Your task to perform on an android device: change your default location settings in chrome Image 0: 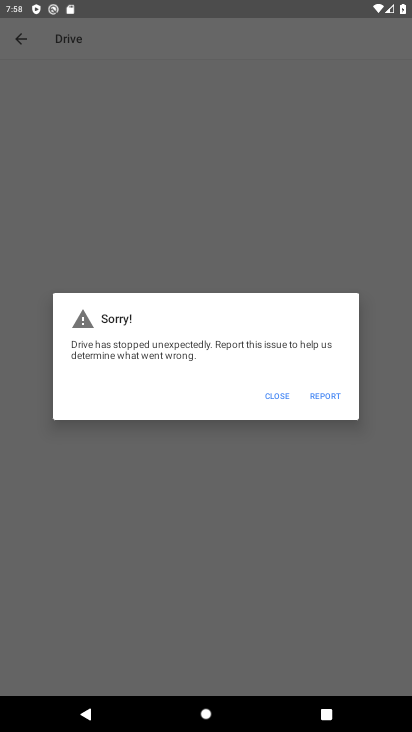
Step 0: press home button
Your task to perform on an android device: change your default location settings in chrome Image 1: 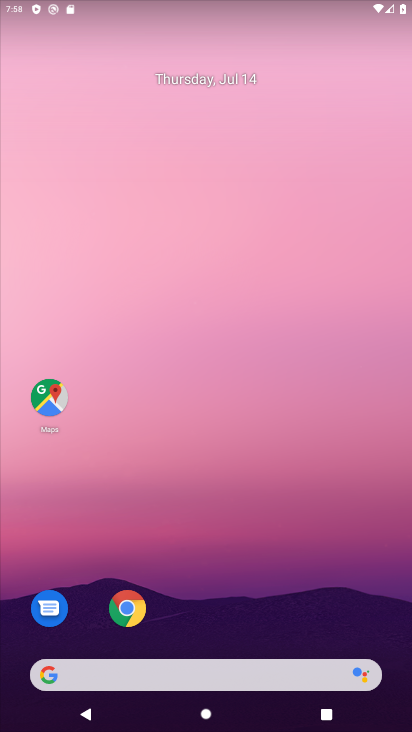
Step 1: click (124, 613)
Your task to perform on an android device: change your default location settings in chrome Image 2: 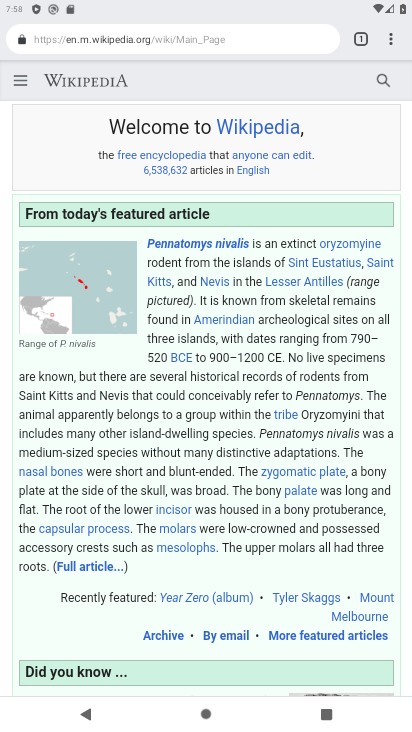
Step 2: click (389, 40)
Your task to perform on an android device: change your default location settings in chrome Image 3: 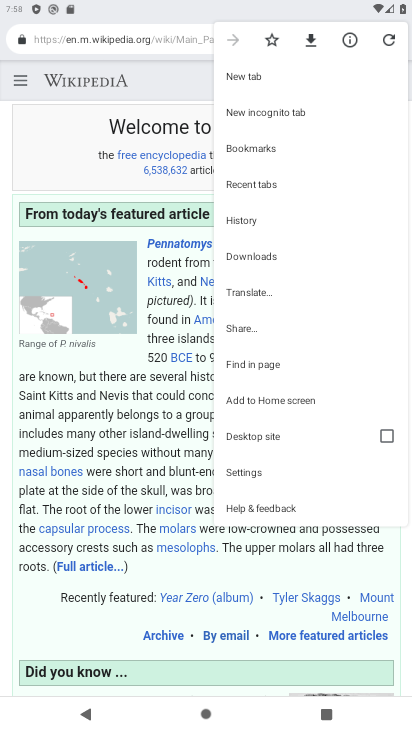
Step 3: click (243, 467)
Your task to perform on an android device: change your default location settings in chrome Image 4: 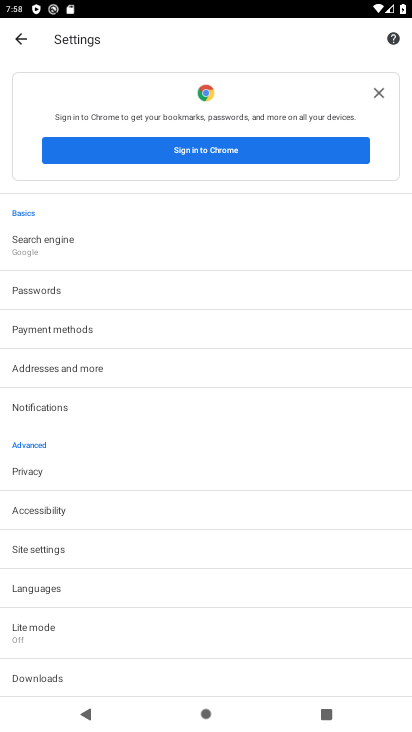
Step 4: click (44, 551)
Your task to perform on an android device: change your default location settings in chrome Image 5: 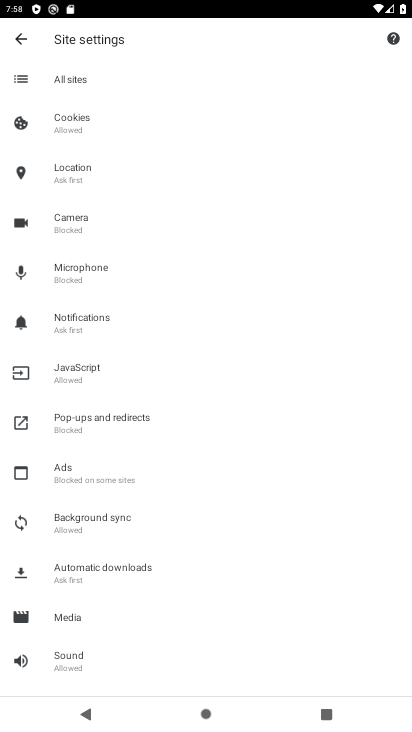
Step 5: click (69, 168)
Your task to perform on an android device: change your default location settings in chrome Image 6: 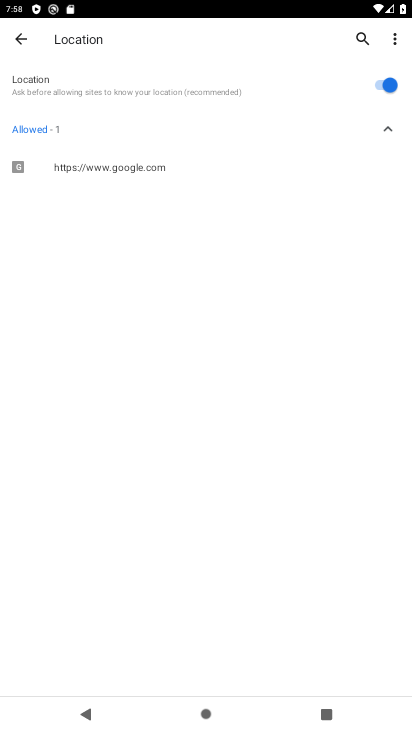
Step 6: click (388, 85)
Your task to perform on an android device: change your default location settings in chrome Image 7: 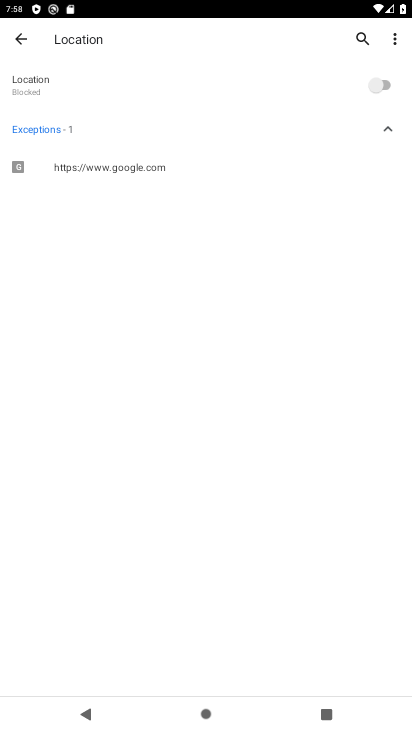
Step 7: task complete